Your task to perform on an android device: Add "macbook" to the cart on newegg.com Image 0: 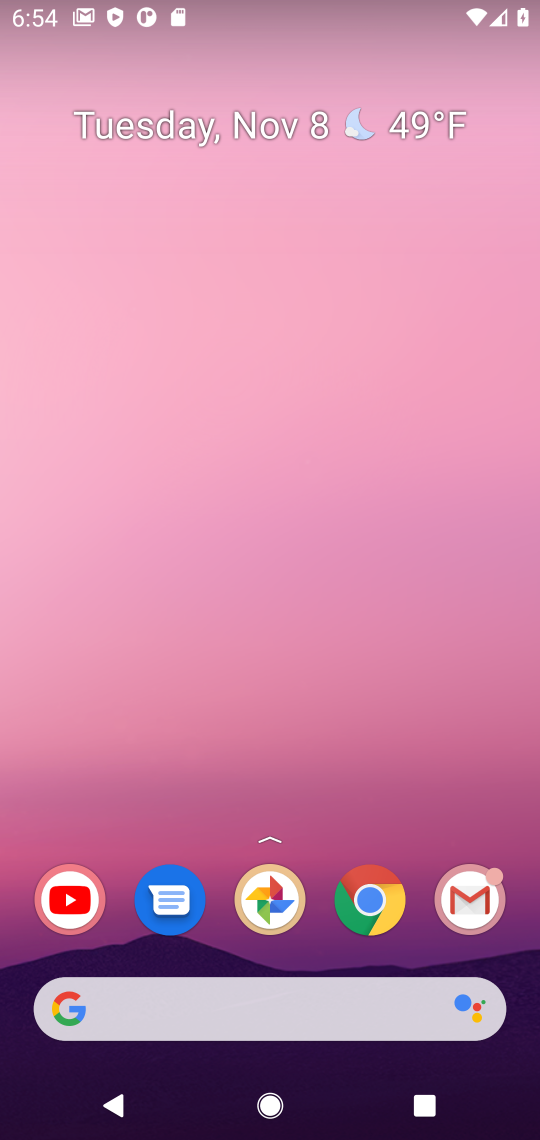
Step 0: click (377, 913)
Your task to perform on an android device: Add "macbook" to the cart on newegg.com Image 1: 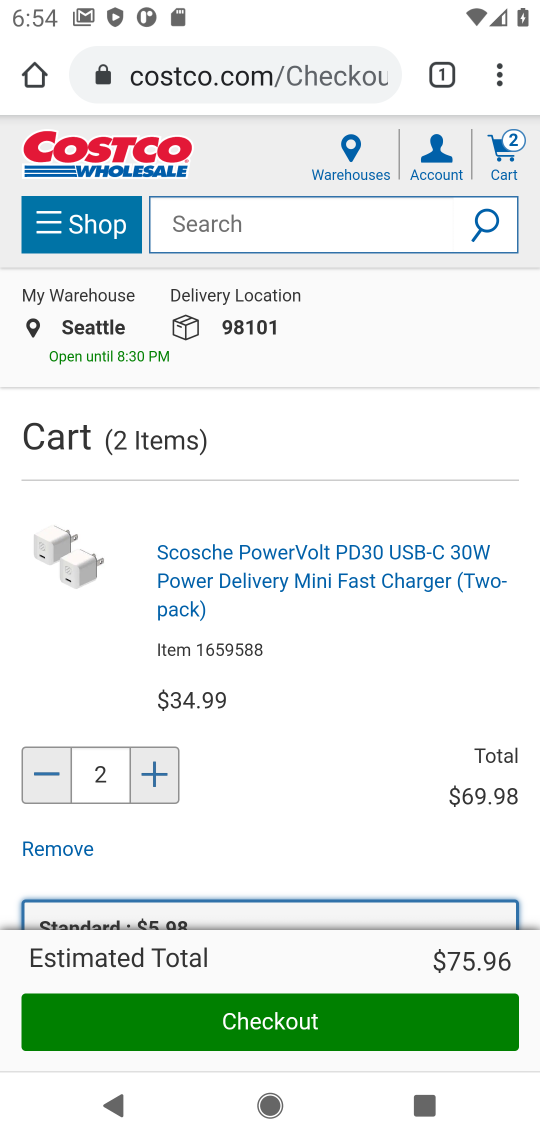
Step 1: click (242, 80)
Your task to perform on an android device: Add "macbook" to the cart on newegg.com Image 2: 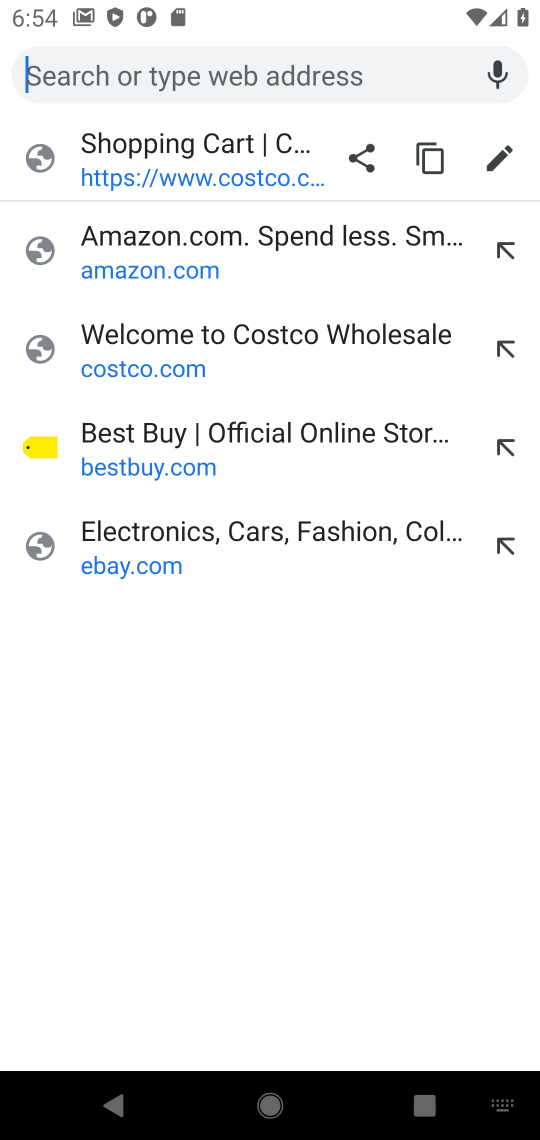
Step 2: type "newegg.com"
Your task to perform on an android device: Add "macbook" to the cart on newegg.com Image 3: 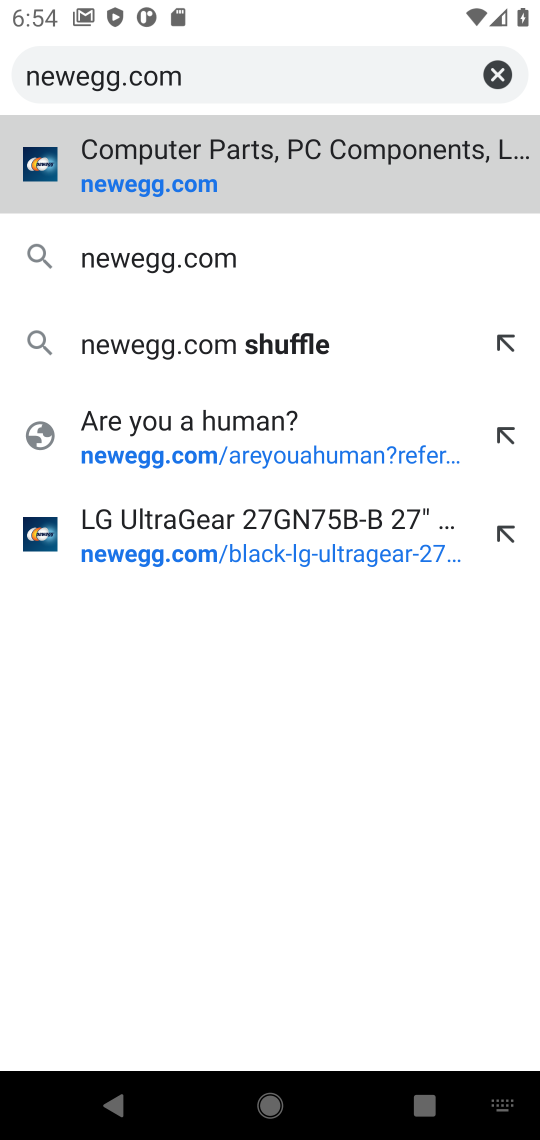
Step 3: type ""
Your task to perform on an android device: Add "macbook" to the cart on newegg.com Image 4: 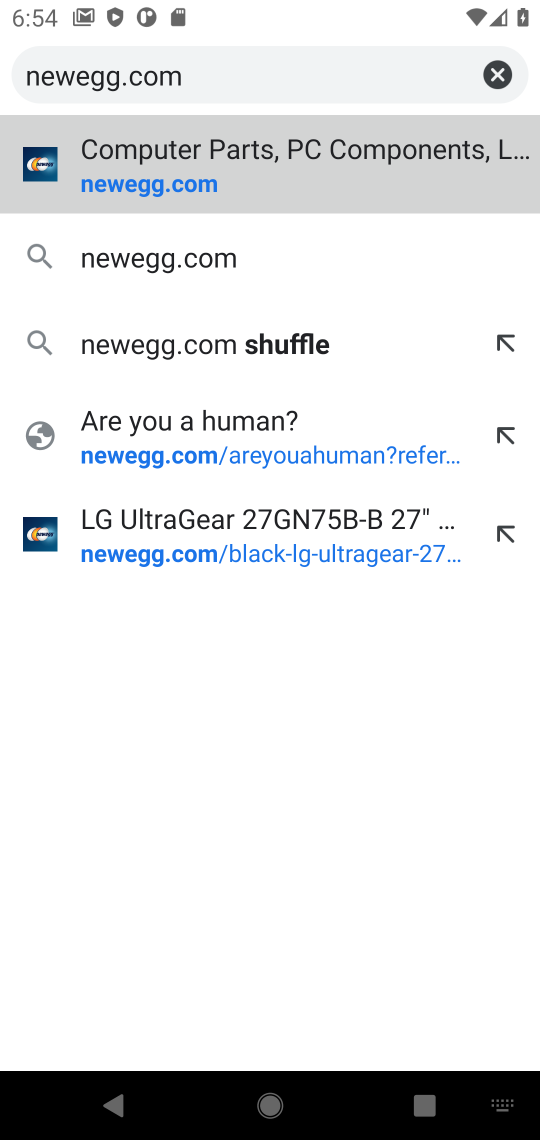
Step 4: press enter
Your task to perform on an android device: Add "macbook" to the cart on newegg.com Image 5: 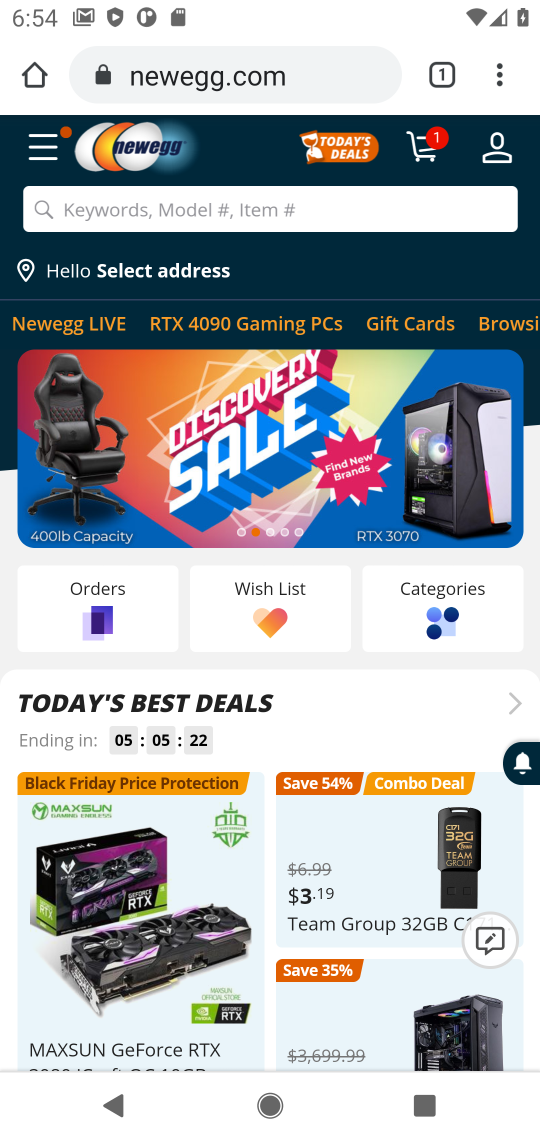
Step 5: click (340, 214)
Your task to perform on an android device: Add "macbook" to the cart on newegg.com Image 6: 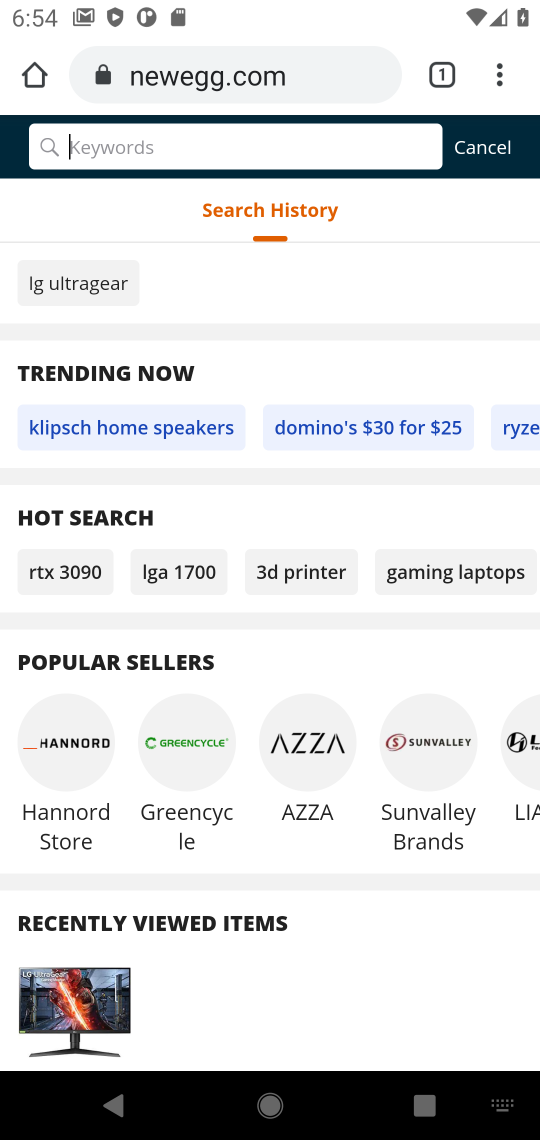
Step 6: type "macbook"
Your task to perform on an android device: Add "macbook" to the cart on newegg.com Image 7: 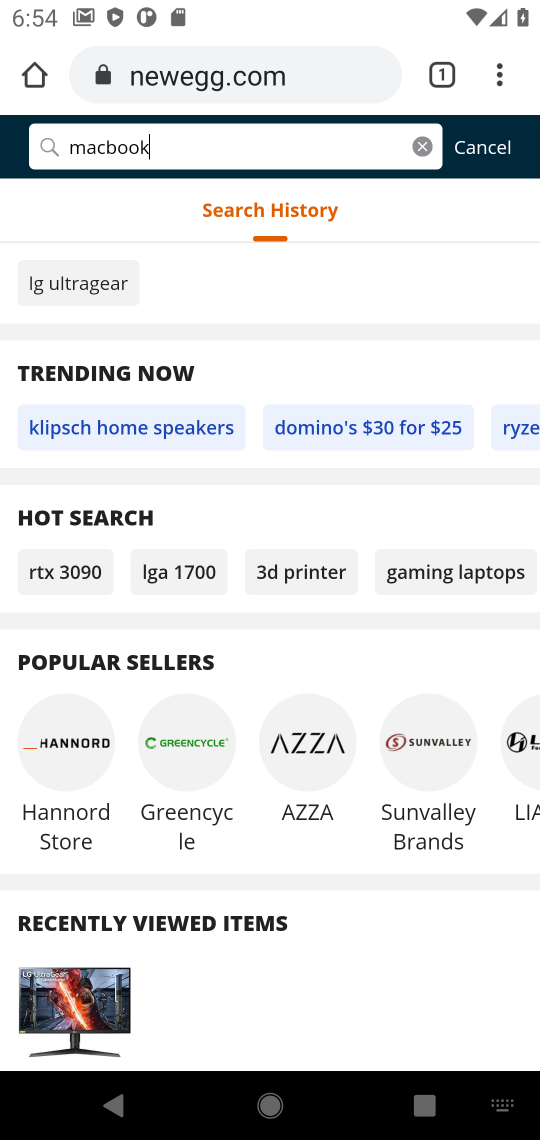
Step 7: type ""
Your task to perform on an android device: Add "macbook" to the cart on newegg.com Image 8: 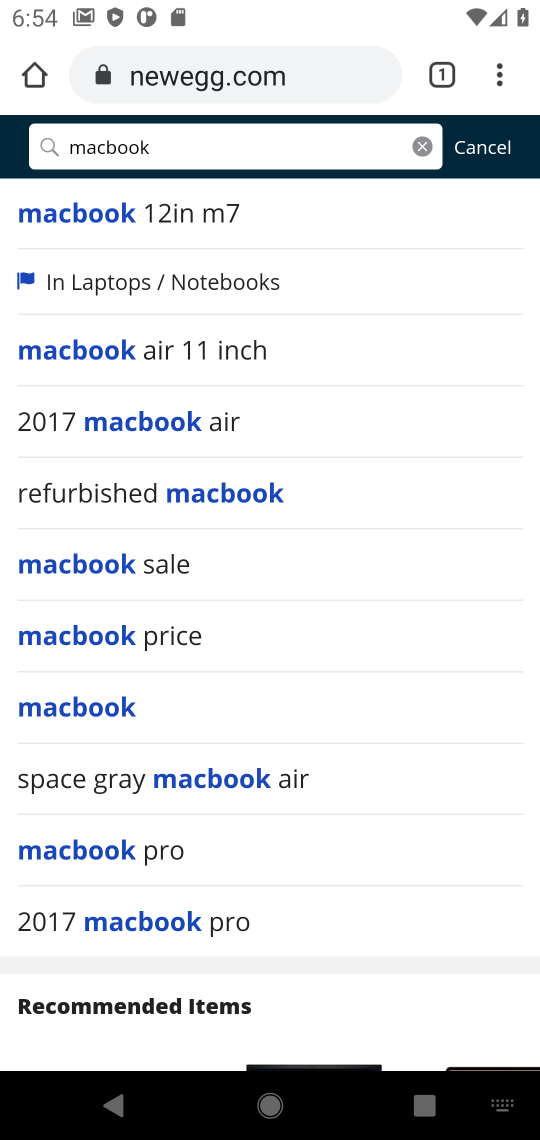
Step 8: press enter
Your task to perform on an android device: Add "macbook" to the cart on newegg.com Image 9: 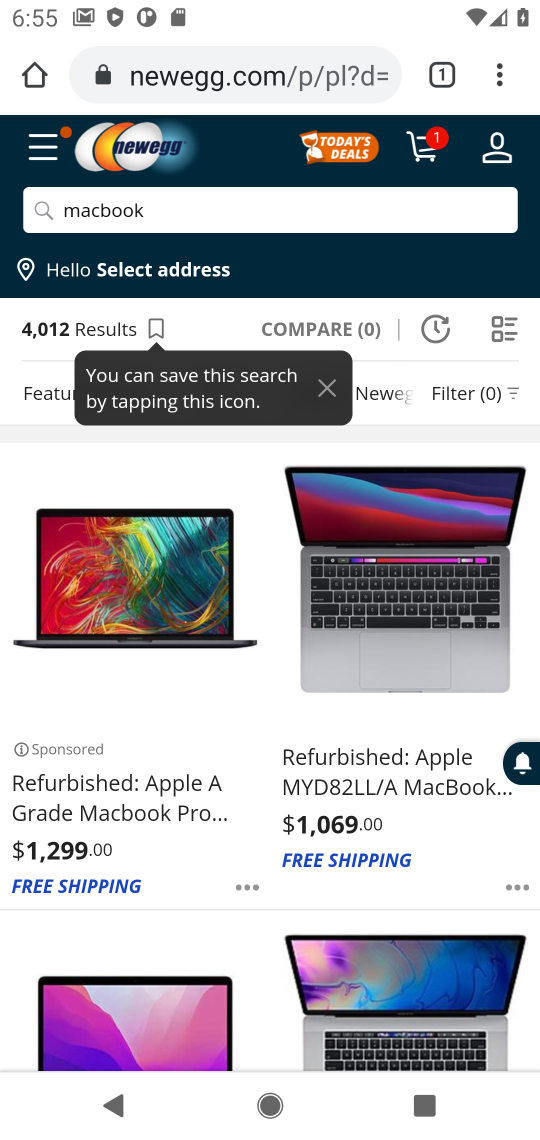
Step 9: drag from (266, 1029) to (315, 687)
Your task to perform on an android device: Add "macbook" to the cart on newegg.com Image 10: 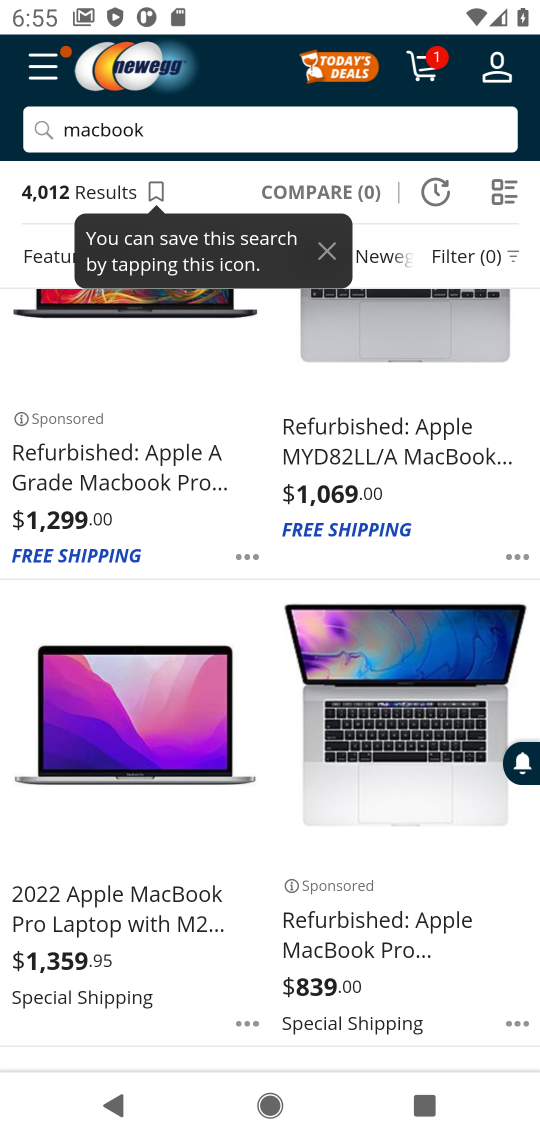
Step 10: click (154, 863)
Your task to perform on an android device: Add "macbook" to the cart on newegg.com Image 11: 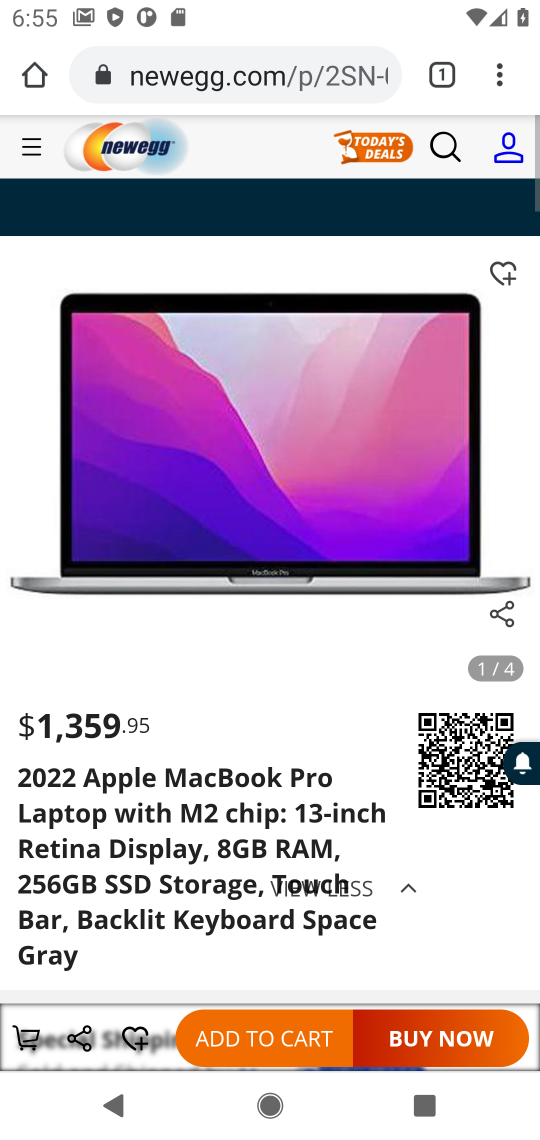
Step 11: click (305, 1048)
Your task to perform on an android device: Add "macbook" to the cart on newegg.com Image 12: 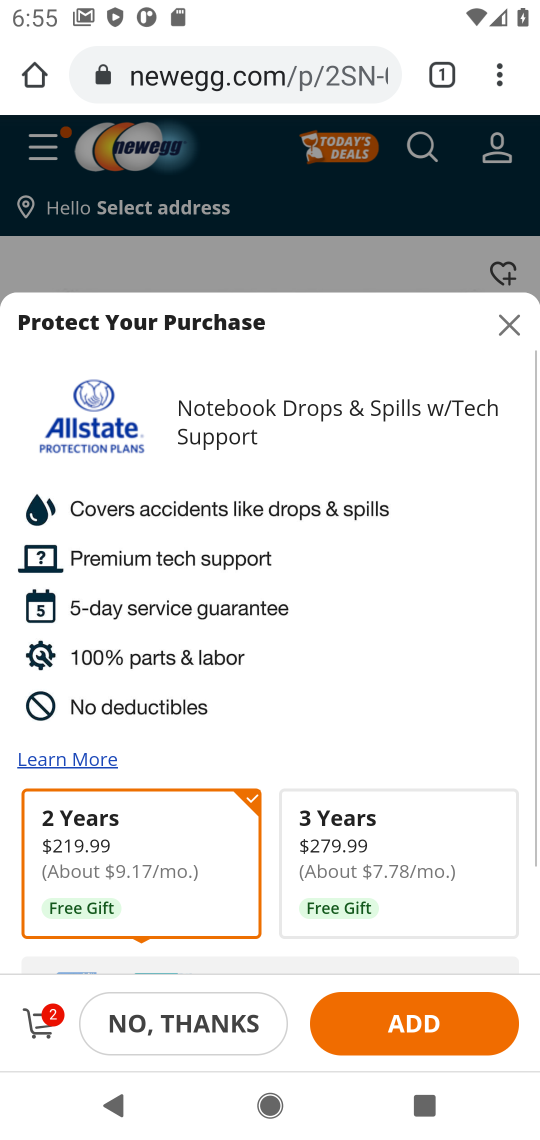
Step 12: click (194, 1031)
Your task to perform on an android device: Add "macbook" to the cart on newegg.com Image 13: 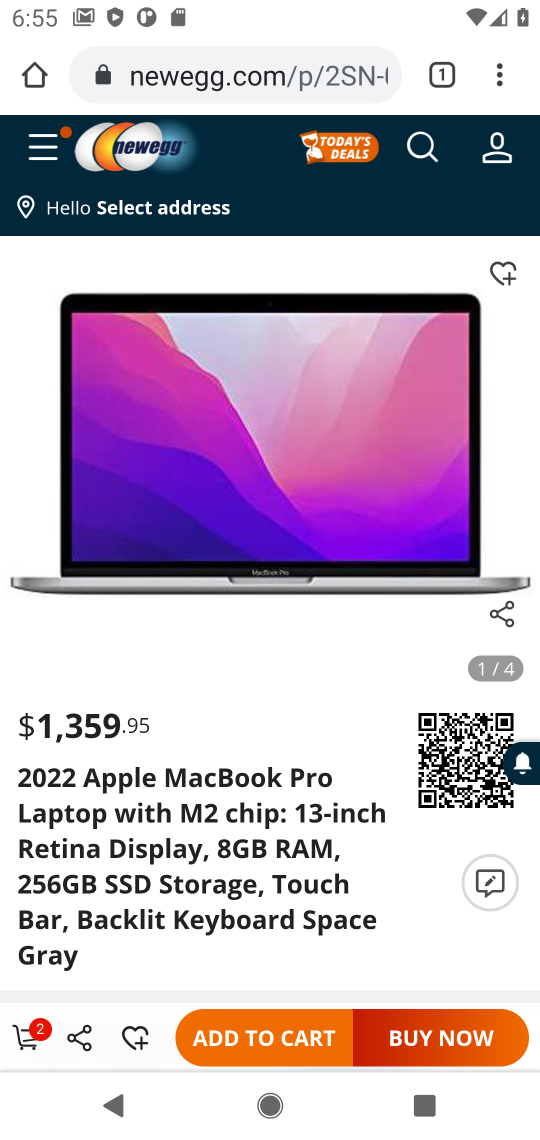
Step 13: task complete